Your task to perform on an android device: turn smart compose on in the gmail app Image 0: 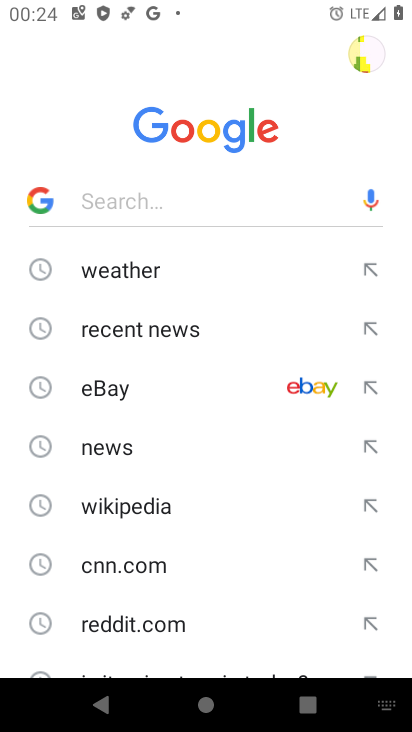
Step 0: press home button
Your task to perform on an android device: turn smart compose on in the gmail app Image 1: 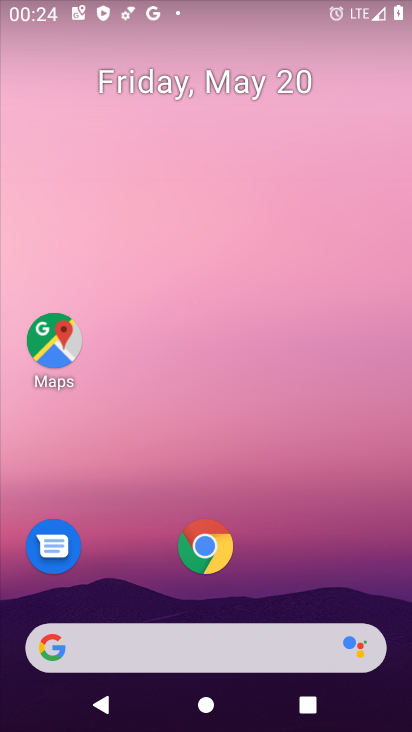
Step 1: drag from (288, 555) to (282, 168)
Your task to perform on an android device: turn smart compose on in the gmail app Image 2: 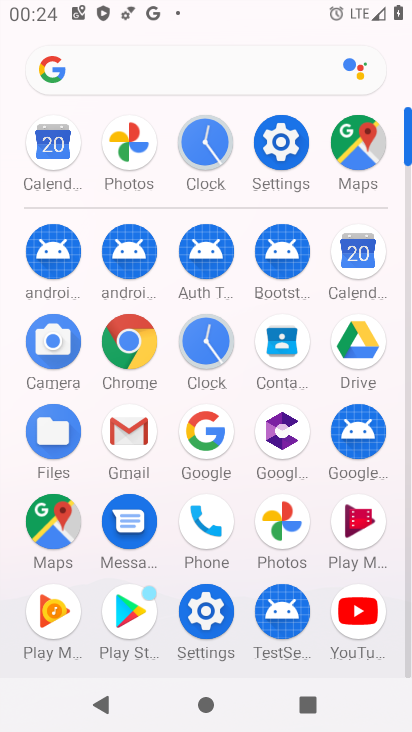
Step 2: drag from (238, 556) to (234, 454)
Your task to perform on an android device: turn smart compose on in the gmail app Image 3: 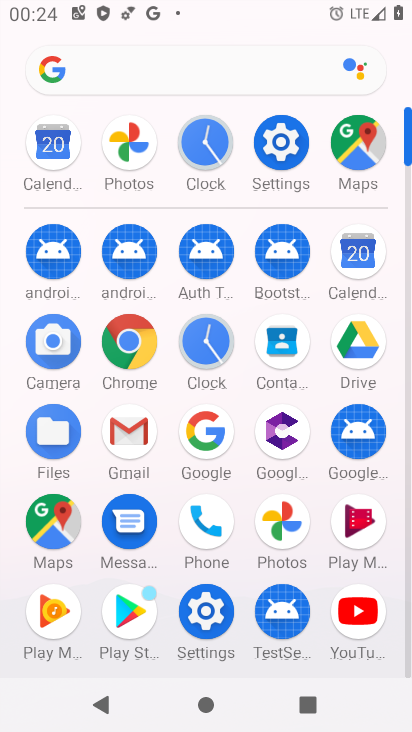
Step 3: click (140, 423)
Your task to perform on an android device: turn smart compose on in the gmail app Image 4: 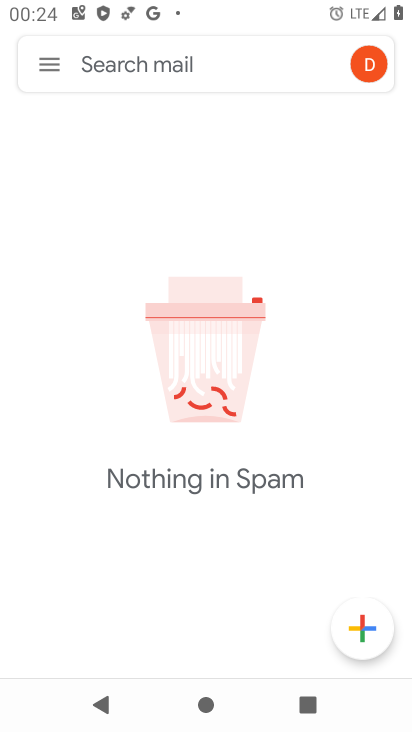
Step 4: click (62, 60)
Your task to perform on an android device: turn smart compose on in the gmail app Image 5: 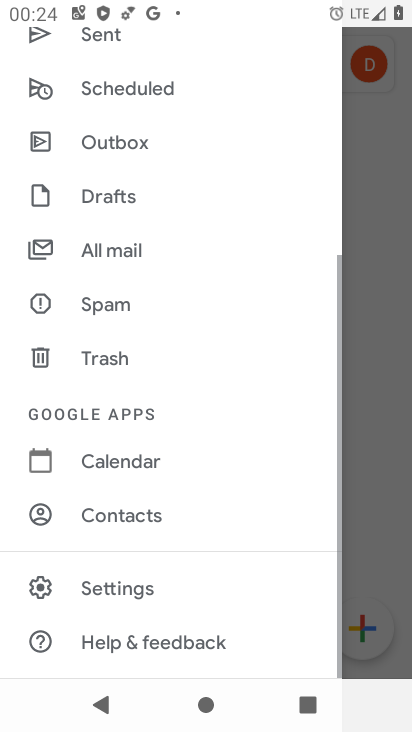
Step 5: drag from (175, 525) to (234, 176)
Your task to perform on an android device: turn smart compose on in the gmail app Image 6: 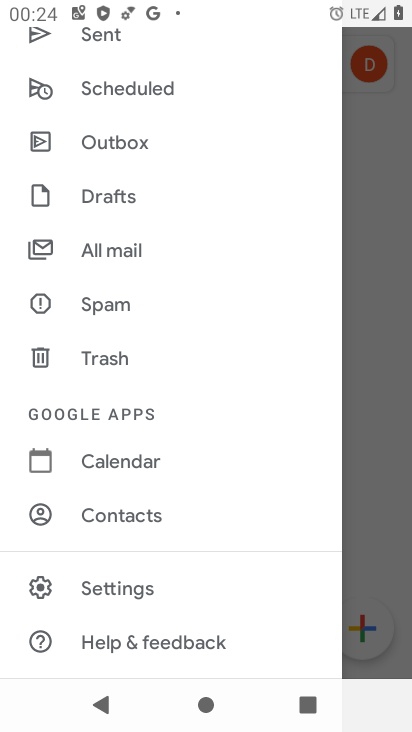
Step 6: click (122, 592)
Your task to perform on an android device: turn smart compose on in the gmail app Image 7: 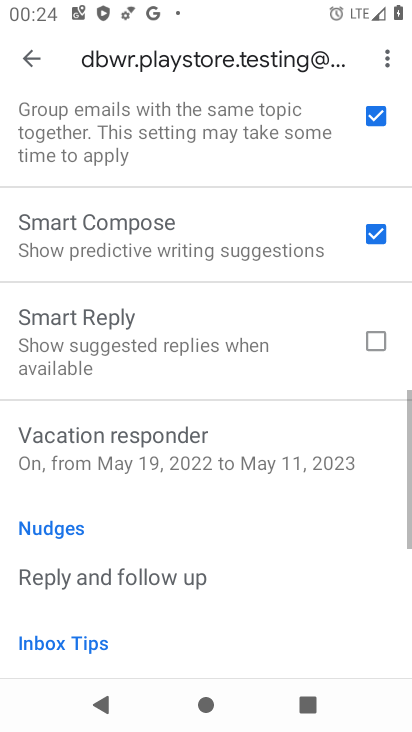
Step 7: drag from (157, 580) to (221, 114)
Your task to perform on an android device: turn smart compose on in the gmail app Image 8: 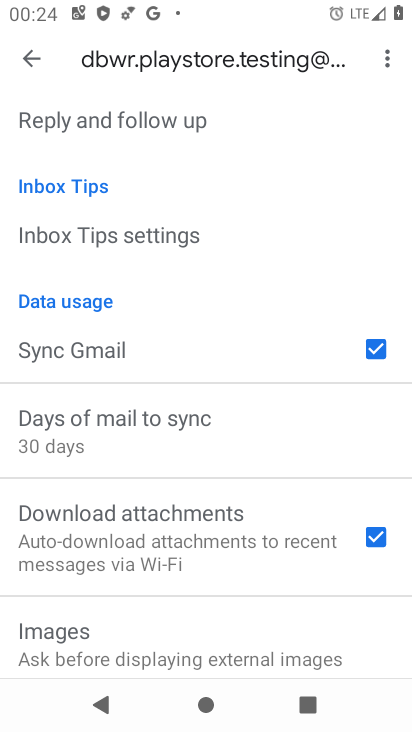
Step 8: click (207, 583)
Your task to perform on an android device: turn smart compose on in the gmail app Image 9: 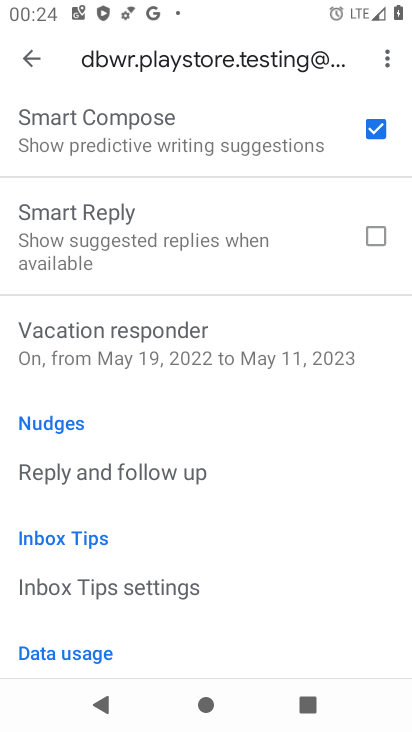
Step 9: task complete